Your task to perform on an android device: Open Google Chrome and click the shortcut for Amazon.com Image 0: 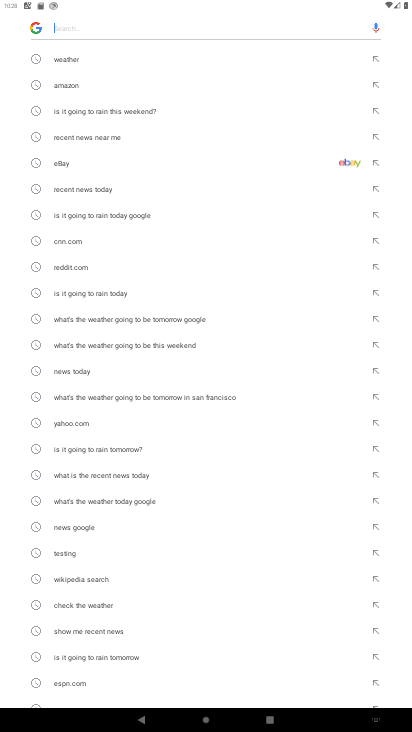
Step 0: press home button
Your task to perform on an android device: Open Google Chrome and click the shortcut for Amazon.com Image 1: 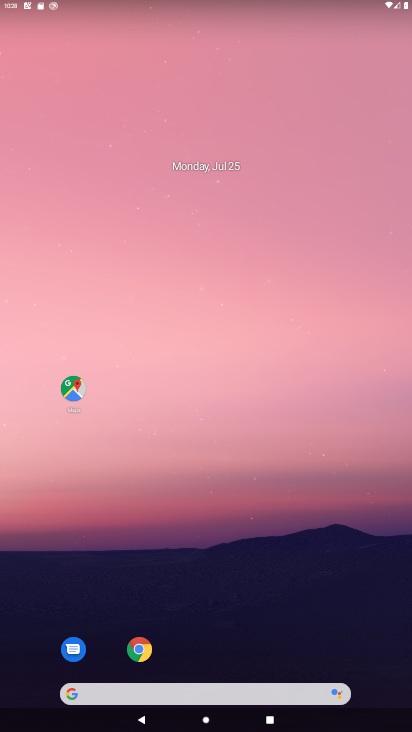
Step 1: click (138, 651)
Your task to perform on an android device: Open Google Chrome and click the shortcut for Amazon.com Image 2: 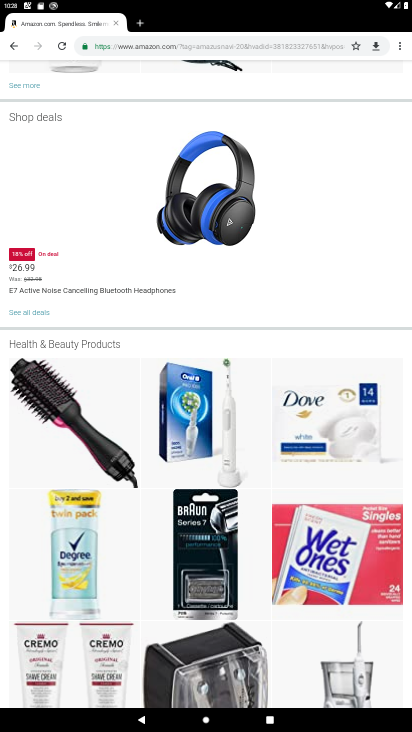
Step 2: click (399, 51)
Your task to perform on an android device: Open Google Chrome and click the shortcut for Amazon.com Image 3: 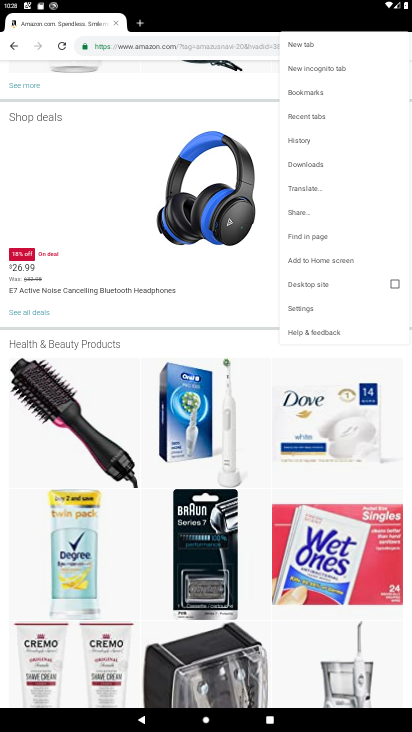
Step 3: click (301, 44)
Your task to perform on an android device: Open Google Chrome and click the shortcut for Amazon.com Image 4: 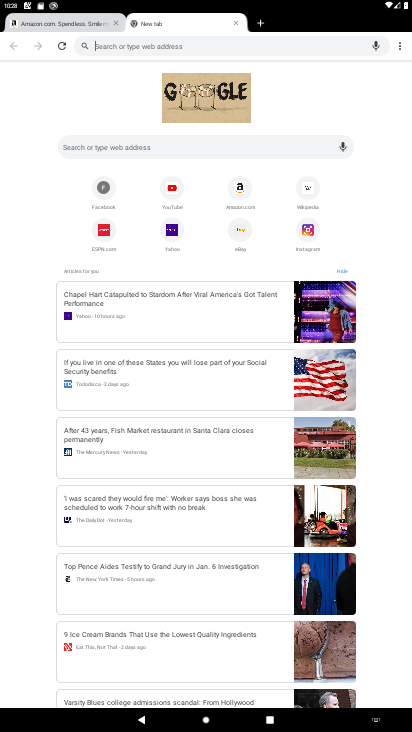
Step 4: click (239, 185)
Your task to perform on an android device: Open Google Chrome and click the shortcut for Amazon.com Image 5: 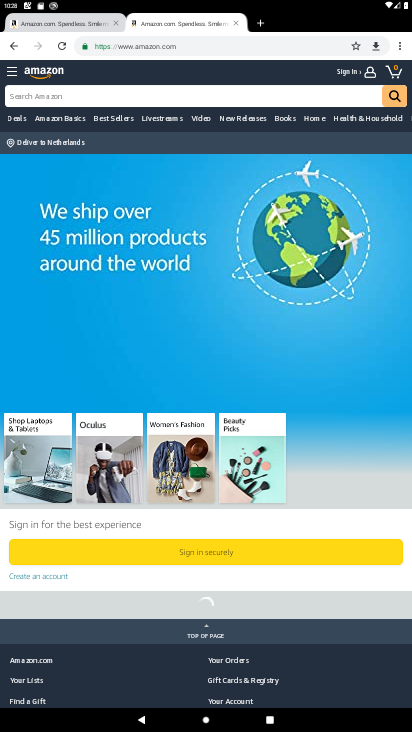
Step 5: task complete